Your task to perform on an android device: see creations saved in the google photos Image 0: 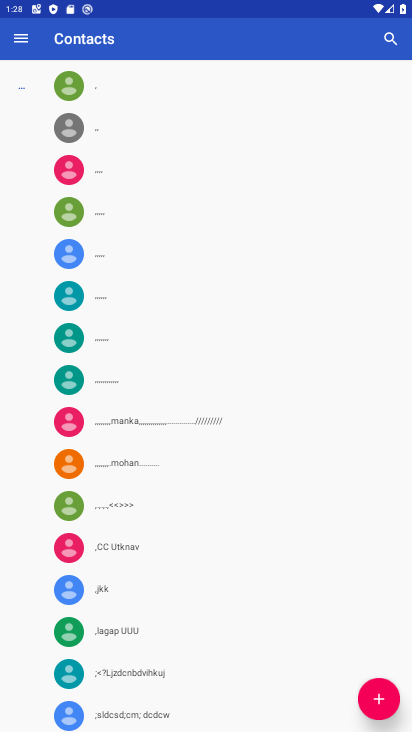
Step 0: press home button
Your task to perform on an android device: see creations saved in the google photos Image 1: 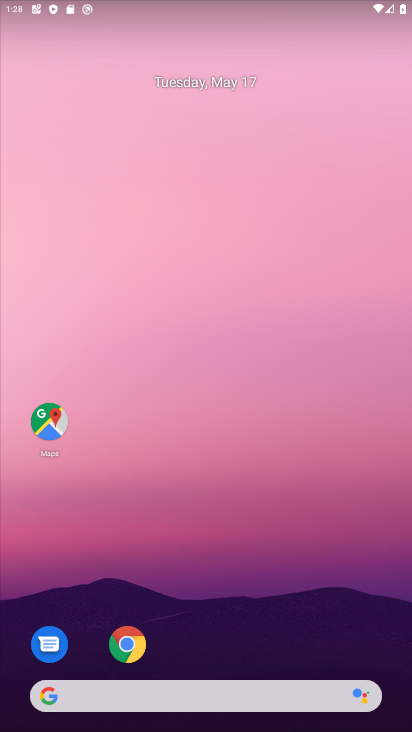
Step 1: drag from (220, 693) to (260, 200)
Your task to perform on an android device: see creations saved in the google photos Image 2: 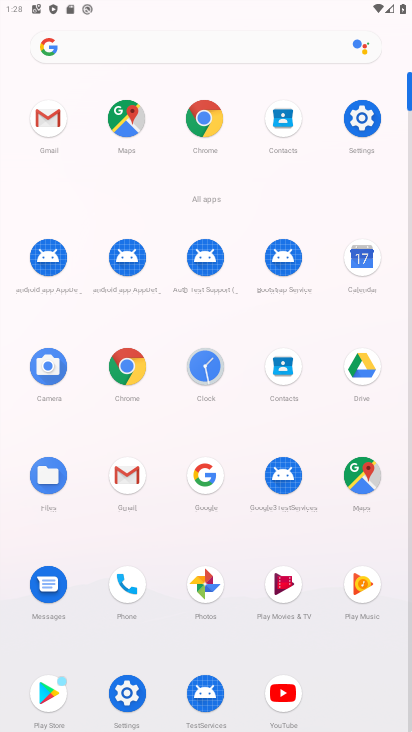
Step 2: click (209, 578)
Your task to perform on an android device: see creations saved in the google photos Image 3: 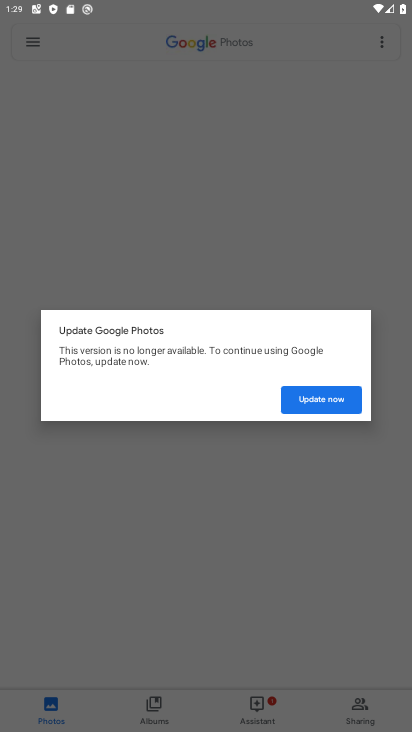
Step 3: click (334, 401)
Your task to perform on an android device: see creations saved in the google photos Image 4: 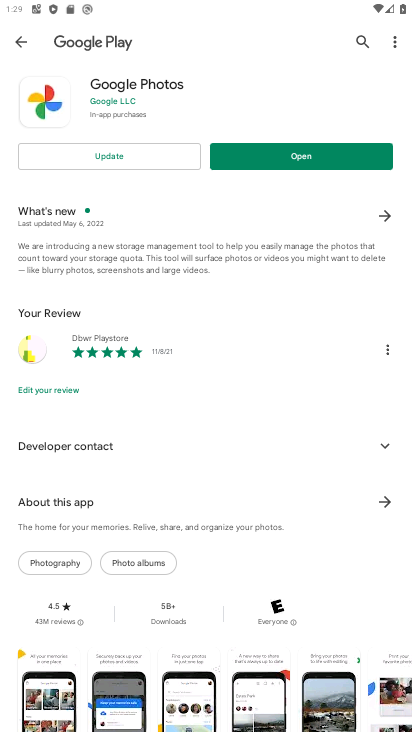
Step 4: click (154, 155)
Your task to perform on an android device: see creations saved in the google photos Image 5: 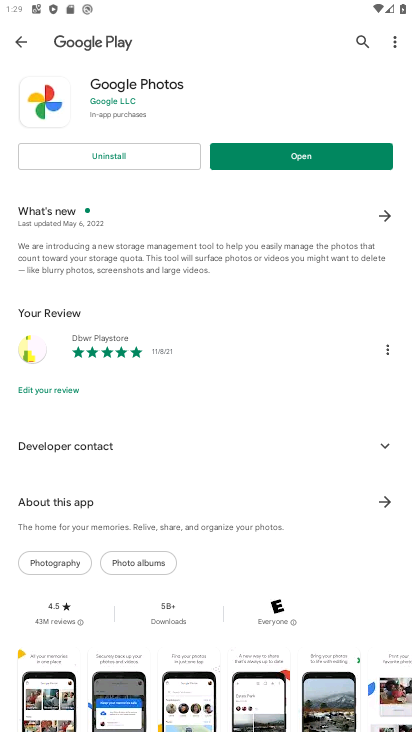
Step 5: click (292, 153)
Your task to perform on an android device: see creations saved in the google photos Image 6: 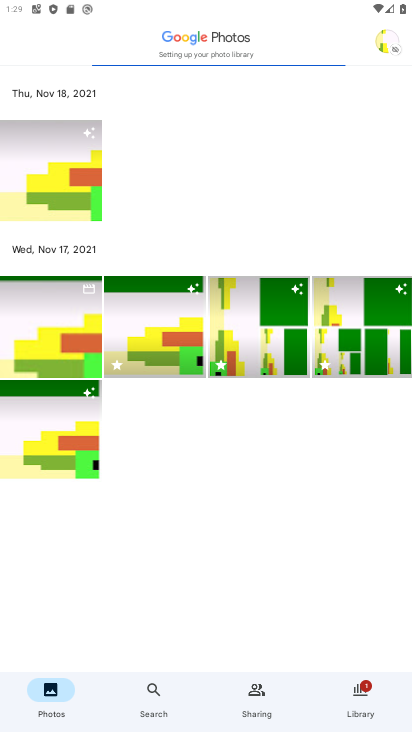
Step 6: click (356, 705)
Your task to perform on an android device: see creations saved in the google photos Image 7: 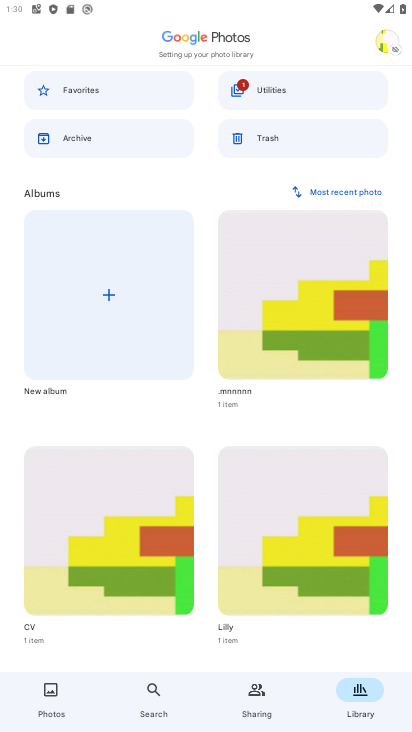
Step 7: task complete